Your task to perform on an android device: Open notification settings Image 0: 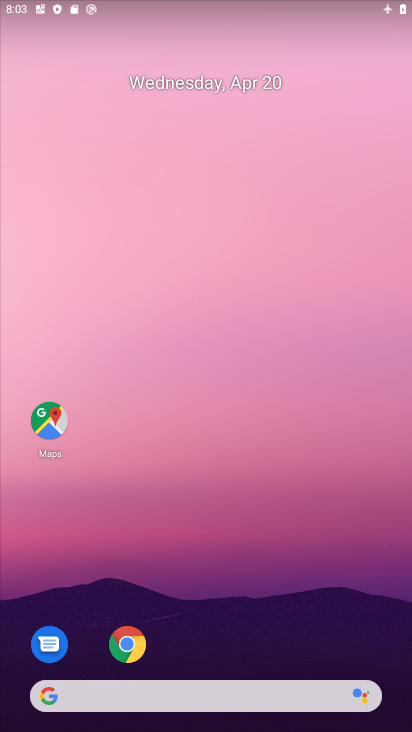
Step 0: drag from (323, 609) to (233, 79)
Your task to perform on an android device: Open notification settings Image 1: 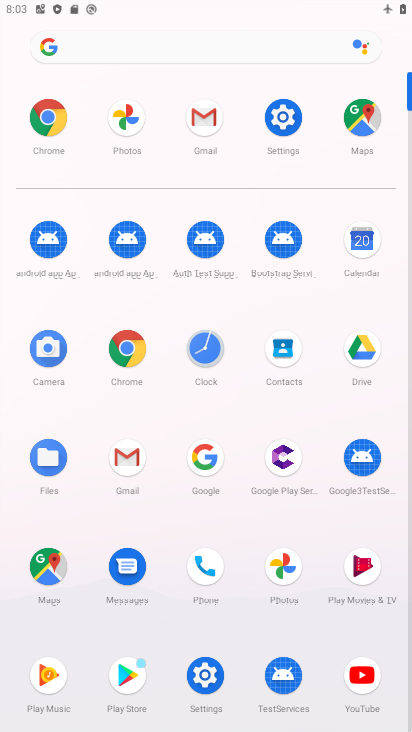
Step 1: click (209, 671)
Your task to perform on an android device: Open notification settings Image 2: 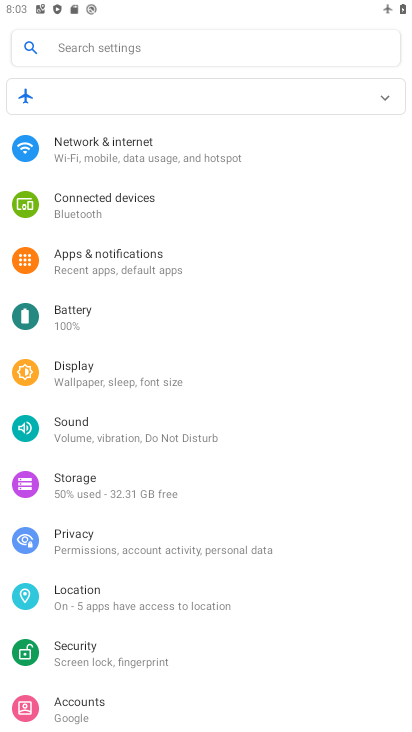
Step 2: click (161, 266)
Your task to perform on an android device: Open notification settings Image 3: 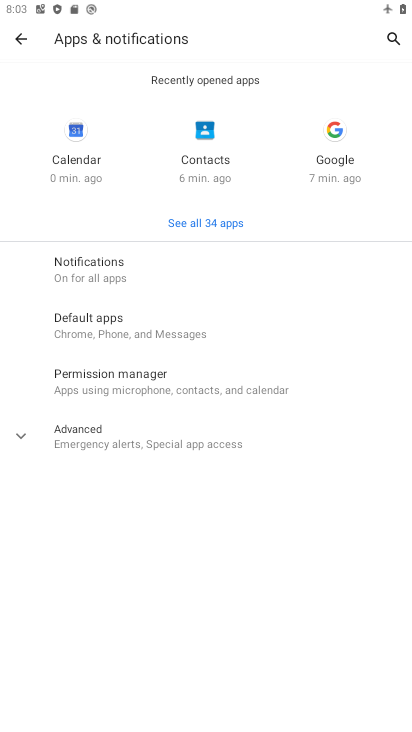
Step 3: click (182, 281)
Your task to perform on an android device: Open notification settings Image 4: 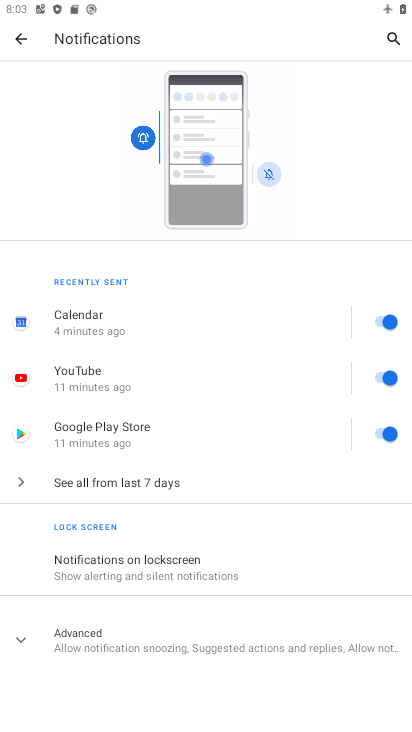
Step 4: task complete